Your task to perform on an android device: turn on javascript in the chrome app Image 0: 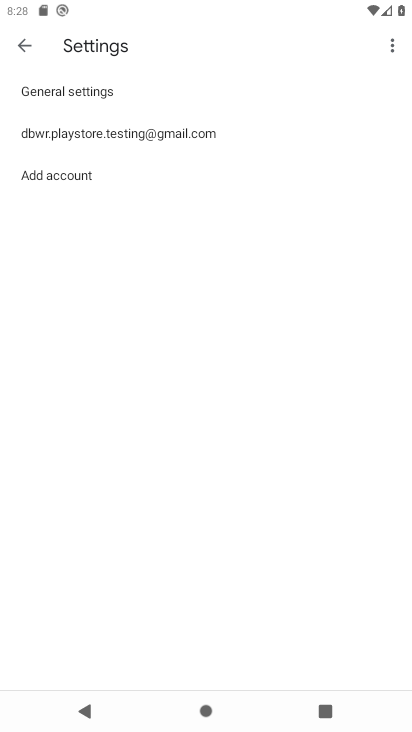
Step 0: press home button
Your task to perform on an android device: turn on javascript in the chrome app Image 1: 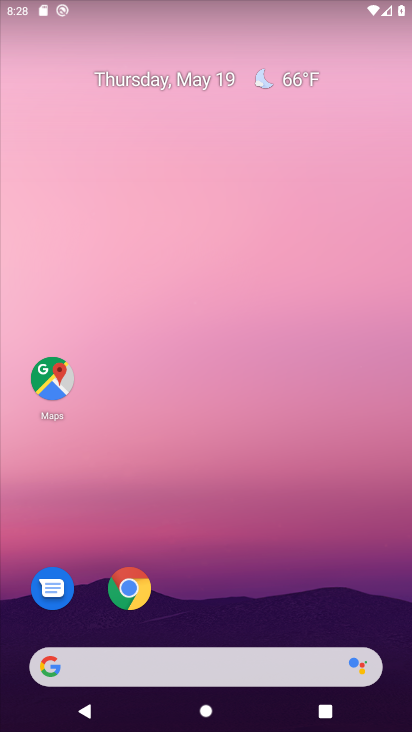
Step 1: drag from (356, 613) to (332, 160)
Your task to perform on an android device: turn on javascript in the chrome app Image 2: 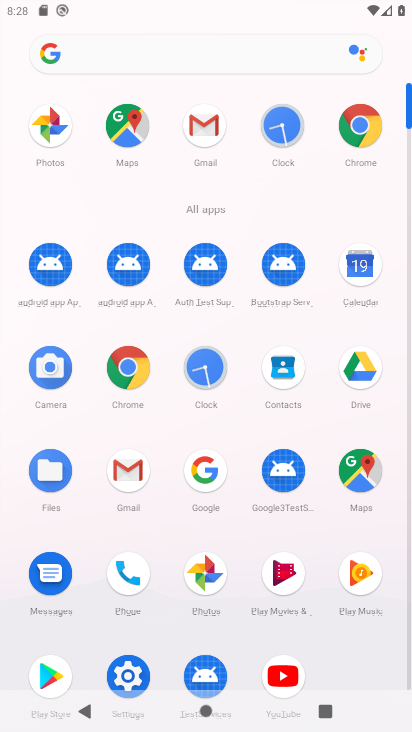
Step 2: click (142, 370)
Your task to perform on an android device: turn on javascript in the chrome app Image 3: 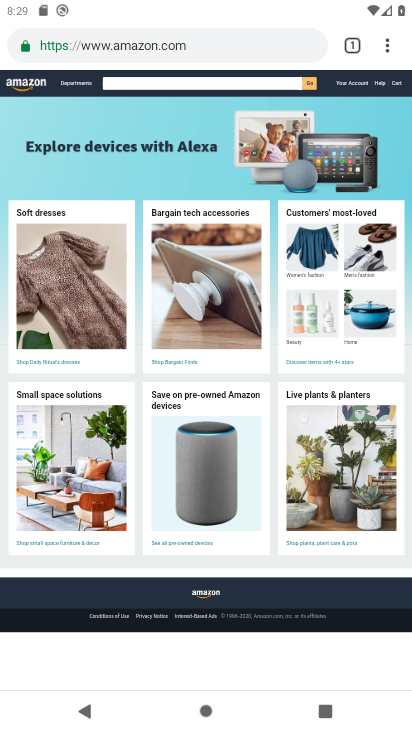
Step 3: click (384, 50)
Your task to perform on an android device: turn on javascript in the chrome app Image 4: 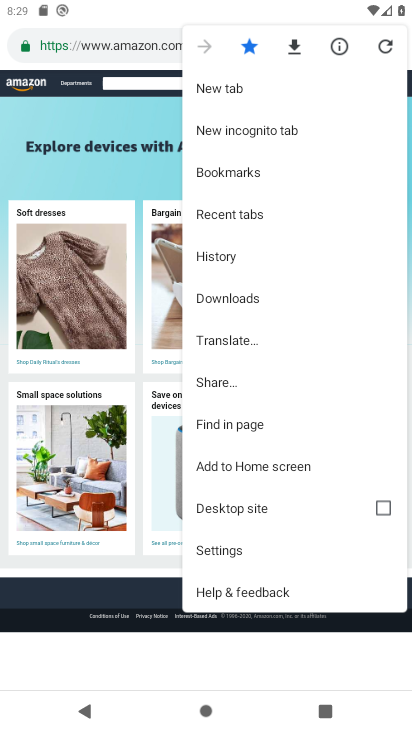
Step 4: drag from (344, 416) to (361, 253)
Your task to perform on an android device: turn on javascript in the chrome app Image 5: 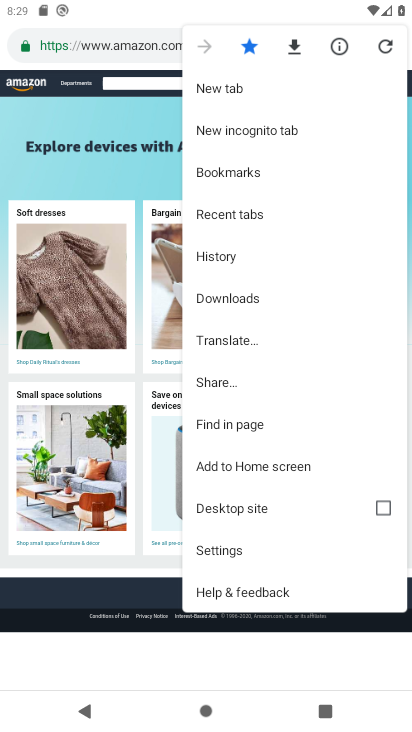
Step 5: click (244, 549)
Your task to perform on an android device: turn on javascript in the chrome app Image 6: 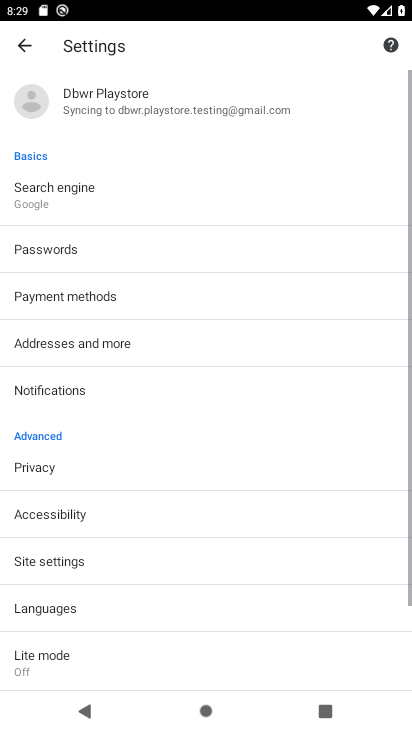
Step 6: drag from (286, 576) to (318, 438)
Your task to perform on an android device: turn on javascript in the chrome app Image 7: 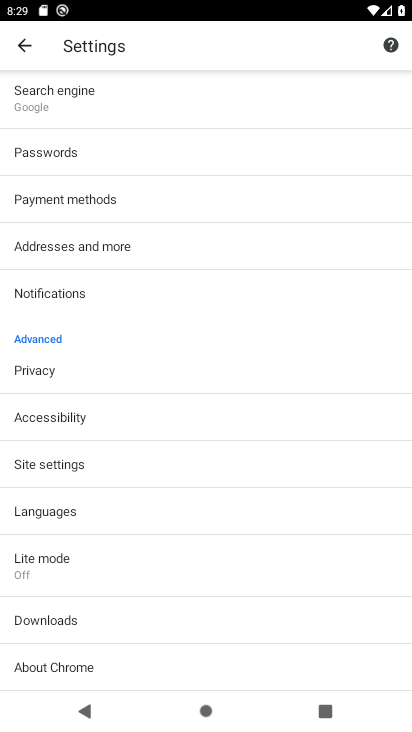
Step 7: drag from (307, 347) to (309, 478)
Your task to perform on an android device: turn on javascript in the chrome app Image 8: 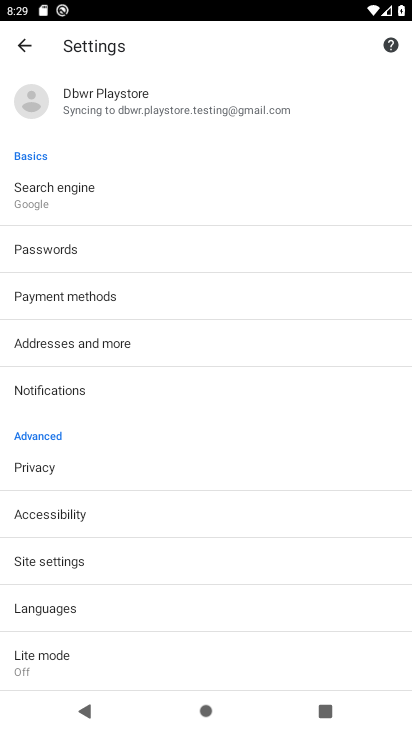
Step 8: drag from (319, 304) to (305, 440)
Your task to perform on an android device: turn on javascript in the chrome app Image 9: 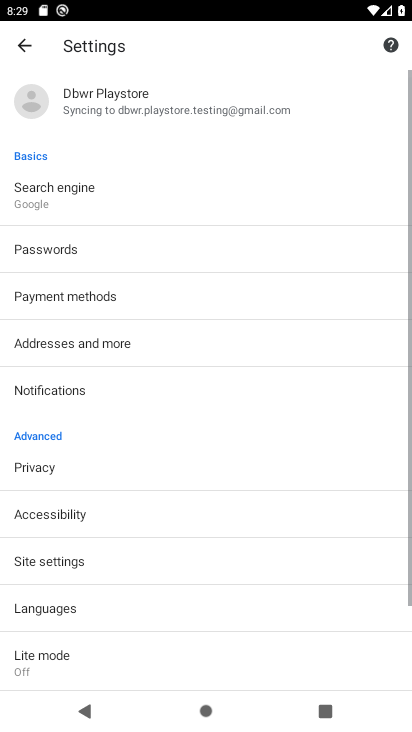
Step 9: drag from (283, 492) to (295, 403)
Your task to perform on an android device: turn on javascript in the chrome app Image 10: 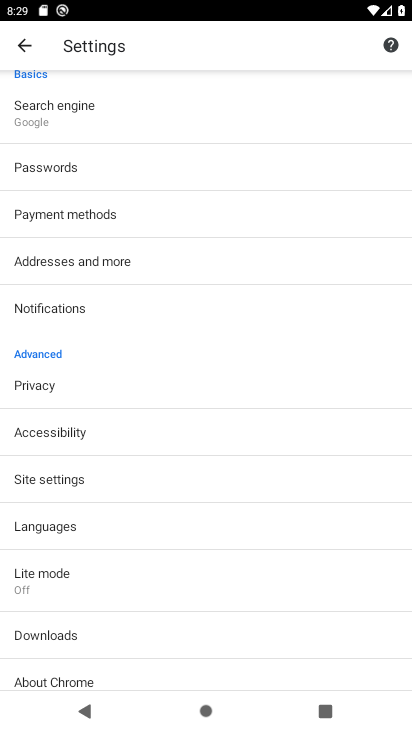
Step 10: click (232, 484)
Your task to perform on an android device: turn on javascript in the chrome app Image 11: 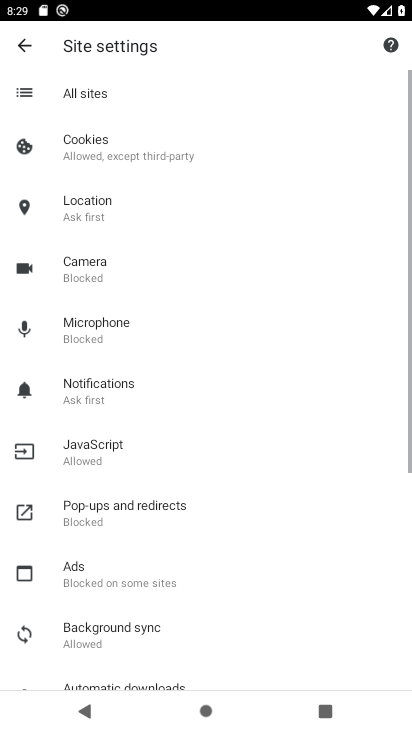
Step 11: drag from (260, 536) to (282, 410)
Your task to perform on an android device: turn on javascript in the chrome app Image 12: 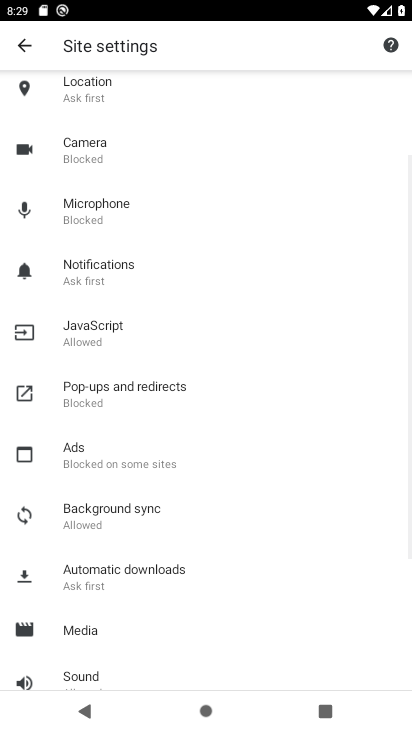
Step 12: drag from (276, 575) to (308, 411)
Your task to perform on an android device: turn on javascript in the chrome app Image 13: 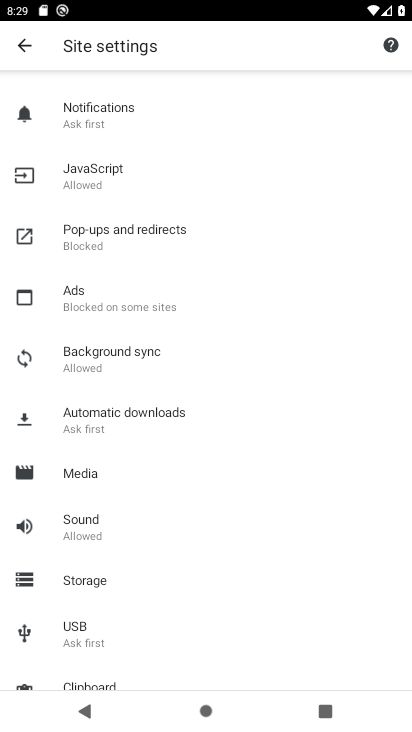
Step 13: drag from (315, 604) to (323, 440)
Your task to perform on an android device: turn on javascript in the chrome app Image 14: 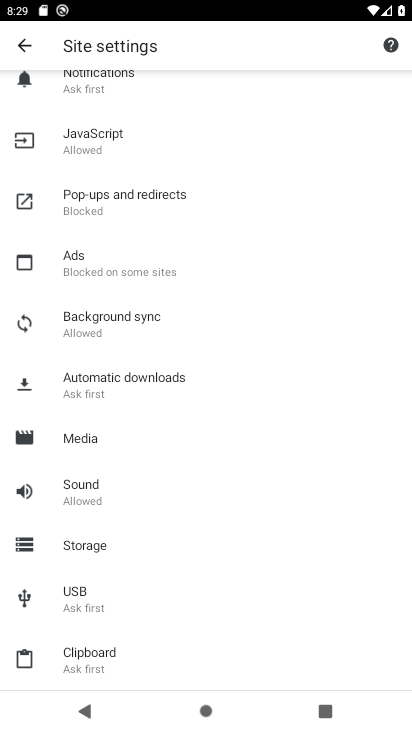
Step 14: drag from (327, 330) to (293, 455)
Your task to perform on an android device: turn on javascript in the chrome app Image 15: 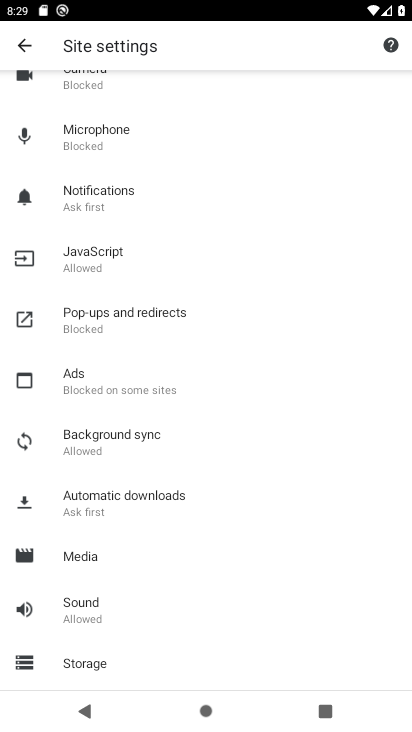
Step 15: drag from (288, 331) to (280, 453)
Your task to perform on an android device: turn on javascript in the chrome app Image 16: 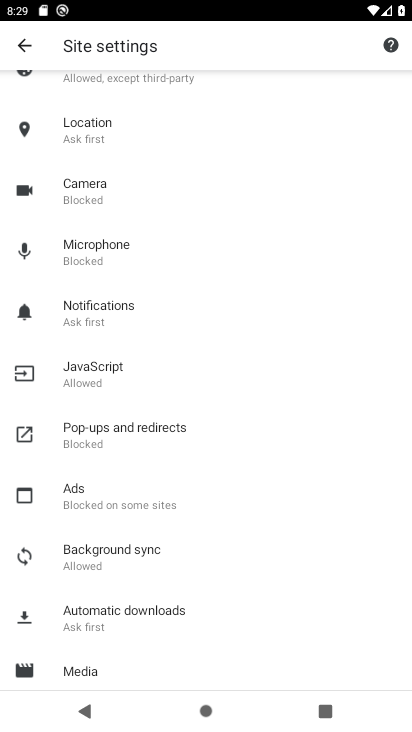
Step 16: drag from (299, 335) to (300, 441)
Your task to perform on an android device: turn on javascript in the chrome app Image 17: 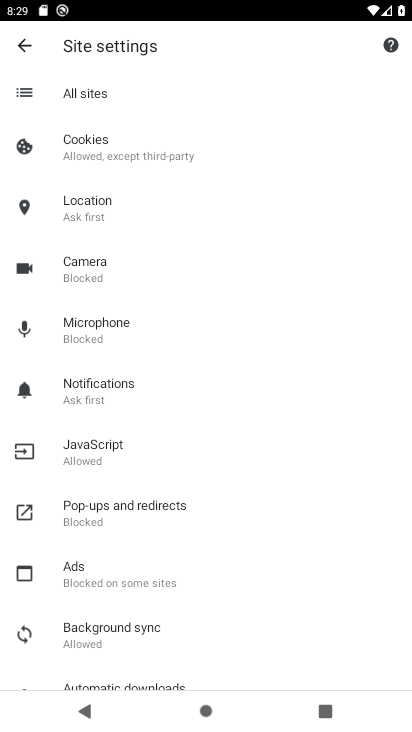
Step 17: drag from (305, 291) to (293, 435)
Your task to perform on an android device: turn on javascript in the chrome app Image 18: 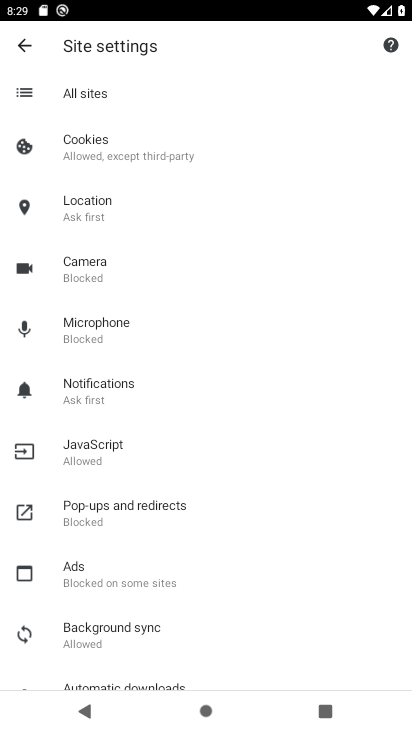
Step 18: drag from (287, 607) to (291, 461)
Your task to perform on an android device: turn on javascript in the chrome app Image 19: 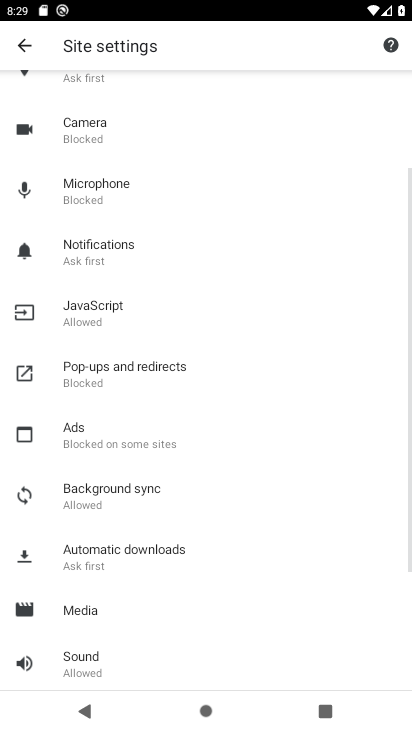
Step 19: drag from (279, 610) to (293, 477)
Your task to perform on an android device: turn on javascript in the chrome app Image 20: 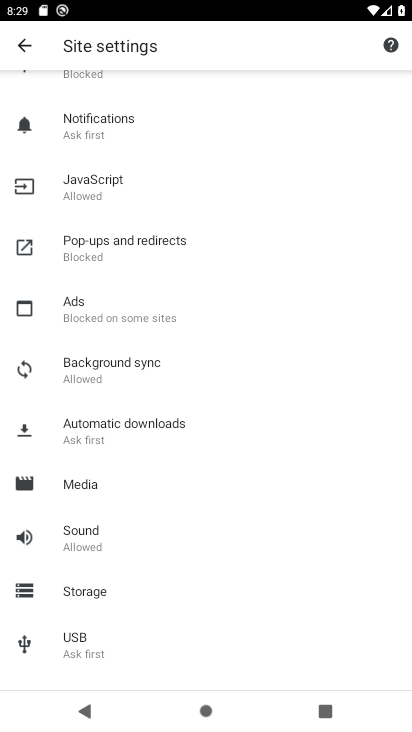
Step 20: drag from (274, 585) to (283, 461)
Your task to perform on an android device: turn on javascript in the chrome app Image 21: 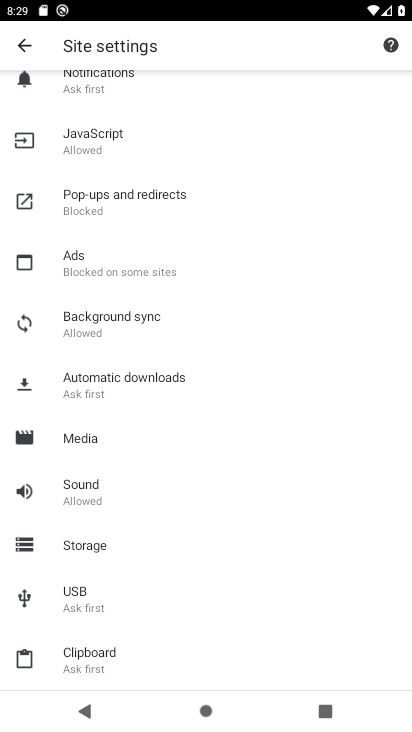
Step 21: drag from (282, 338) to (266, 495)
Your task to perform on an android device: turn on javascript in the chrome app Image 22: 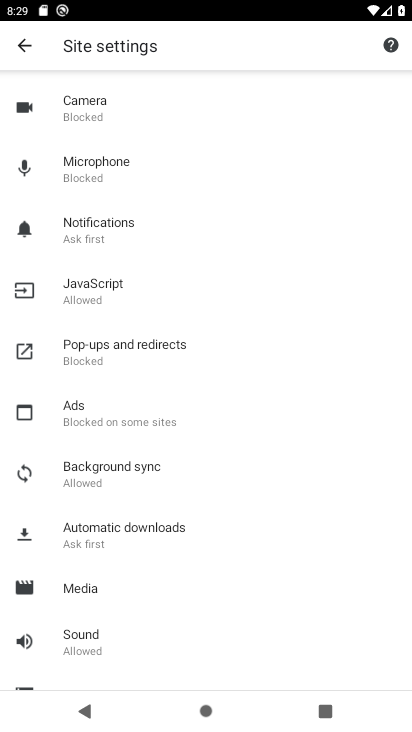
Step 22: click (141, 294)
Your task to perform on an android device: turn on javascript in the chrome app Image 23: 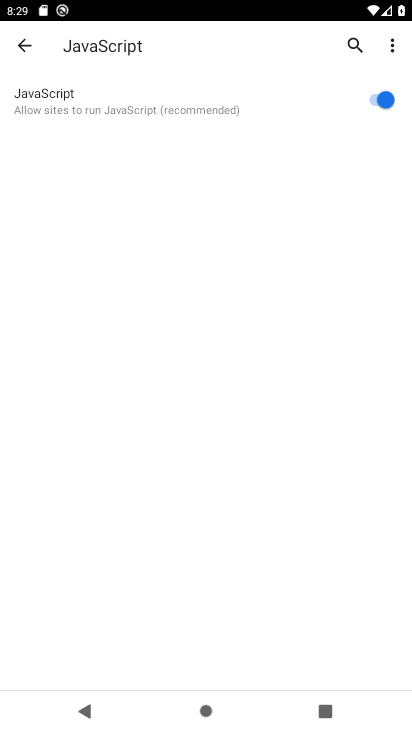
Step 23: task complete